Your task to perform on an android device: Open network settings Image 0: 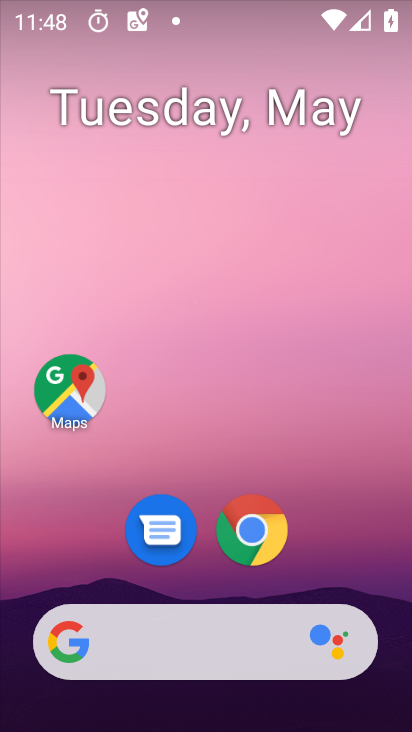
Step 0: drag from (266, 529) to (322, 97)
Your task to perform on an android device: Open network settings Image 1: 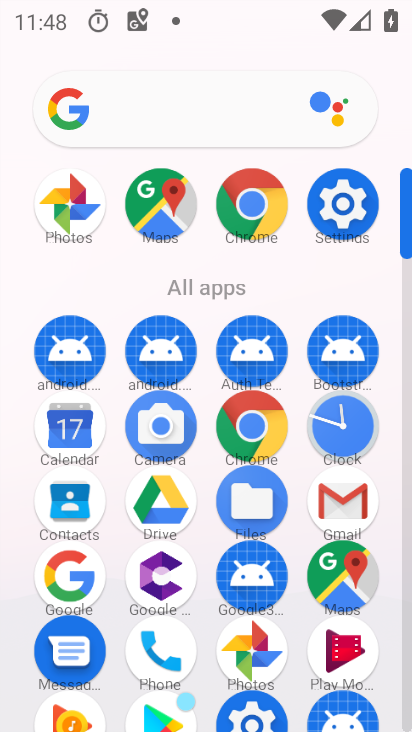
Step 1: click (348, 201)
Your task to perform on an android device: Open network settings Image 2: 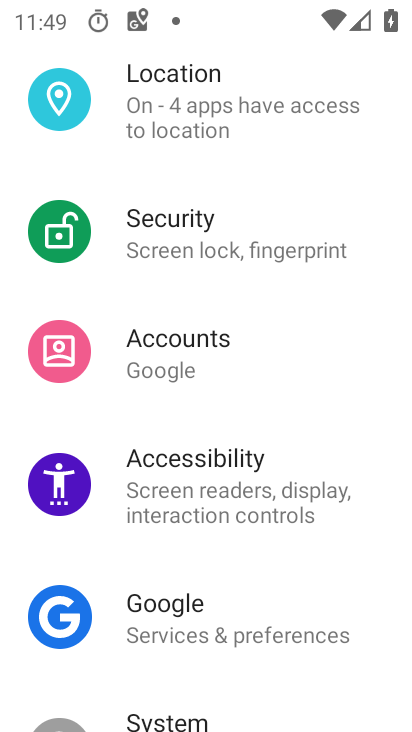
Step 2: drag from (259, 212) to (291, 633)
Your task to perform on an android device: Open network settings Image 3: 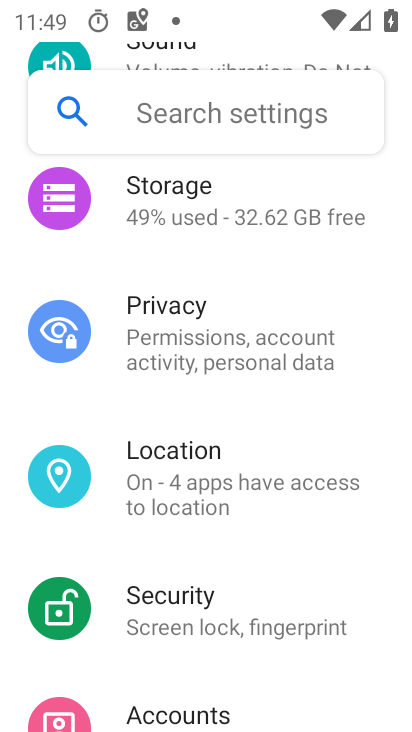
Step 3: drag from (217, 320) to (209, 722)
Your task to perform on an android device: Open network settings Image 4: 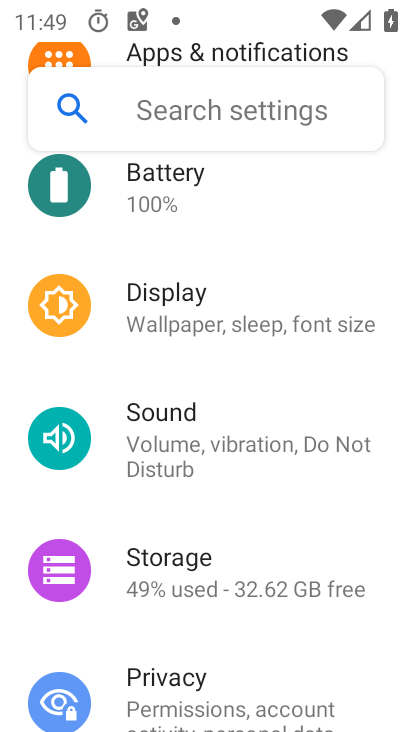
Step 4: drag from (184, 420) to (223, 678)
Your task to perform on an android device: Open network settings Image 5: 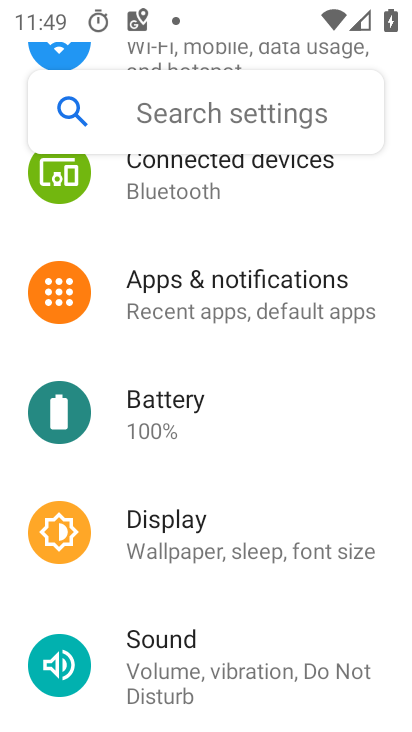
Step 5: drag from (209, 351) to (228, 659)
Your task to perform on an android device: Open network settings Image 6: 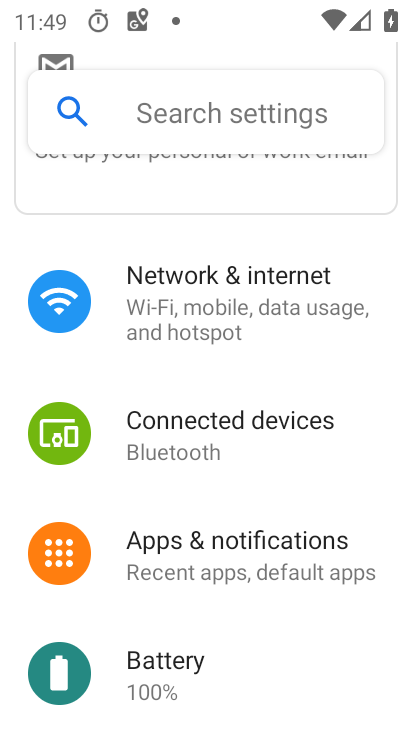
Step 6: click (237, 317)
Your task to perform on an android device: Open network settings Image 7: 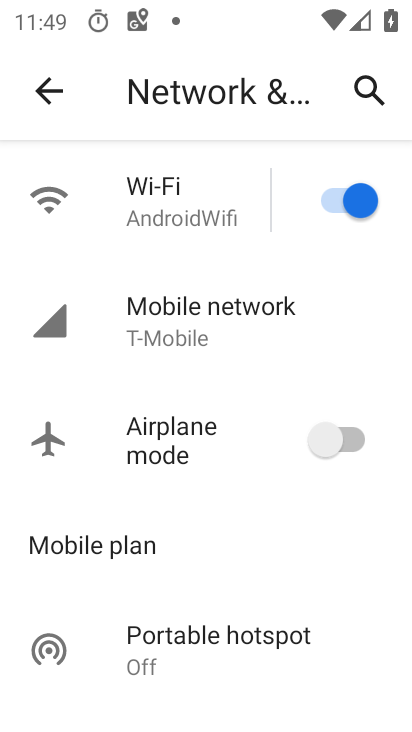
Step 7: task complete